Your task to perform on an android device: Go to display settings Image 0: 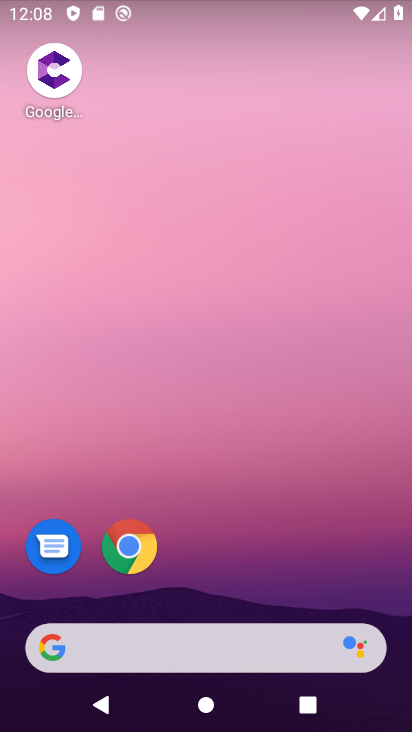
Step 0: drag from (266, 579) to (223, 4)
Your task to perform on an android device: Go to display settings Image 1: 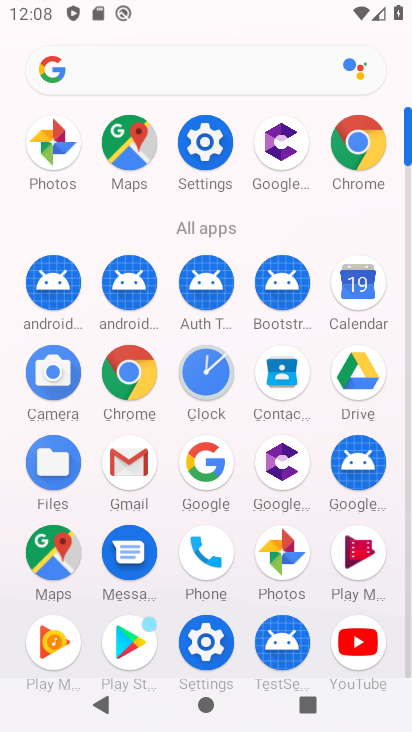
Step 1: click (217, 129)
Your task to perform on an android device: Go to display settings Image 2: 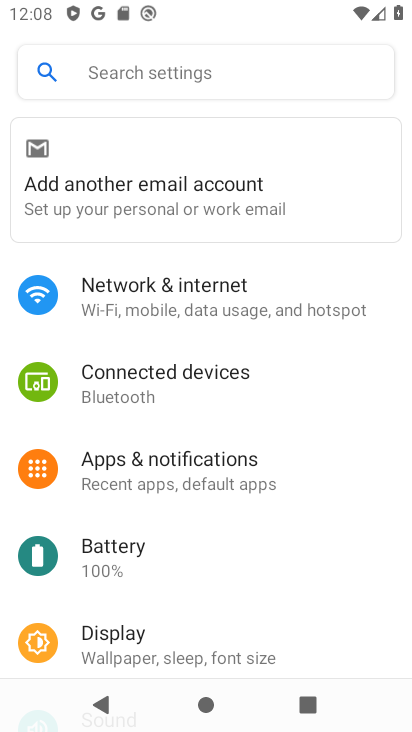
Step 2: drag from (207, 571) to (227, 310)
Your task to perform on an android device: Go to display settings Image 3: 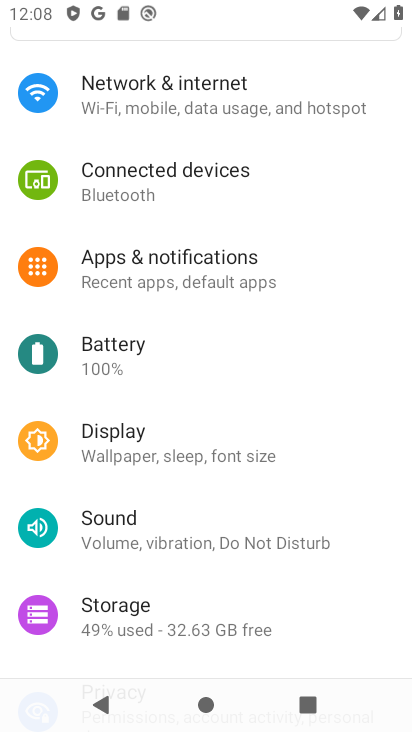
Step 3: click (128, 427)
Your task to perform on an android device: Go to display settings Image 4: 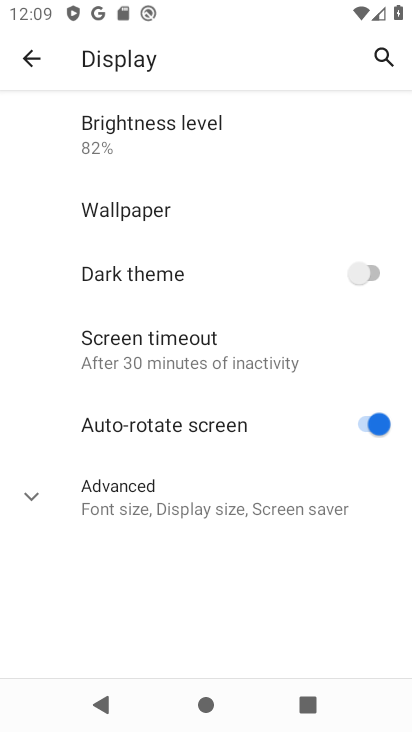
Step 4: task complete